Your task to perform on an android device: Go to wifi settings Image 0: 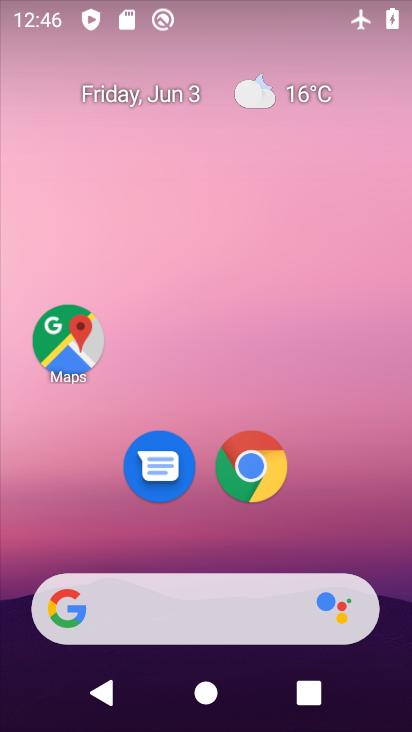
Step 0: click (243, 449)
Your task to perform on an android device: Go to wifi settings Image 1: 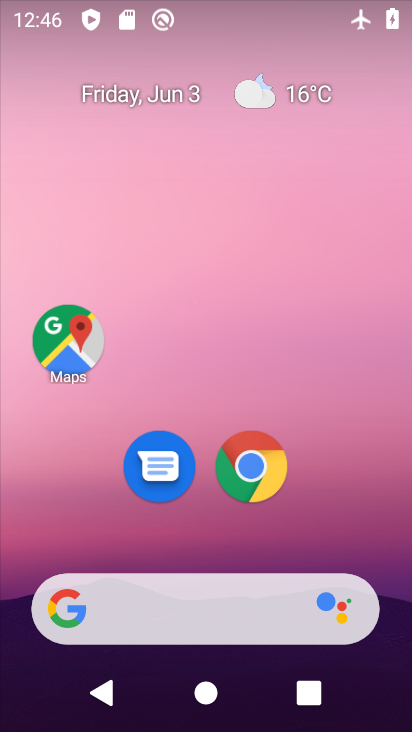
Step 1: drag from (155, 568) to (175, 218)
Your task to perform on an android device: Go to wifi settings Image 2: 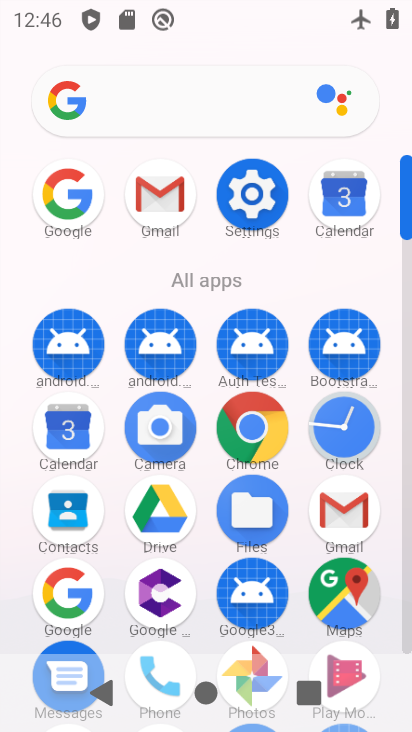
Step 2: click (246, 189)
Your task to perform on an android device: Go to wifi settings Image 3: 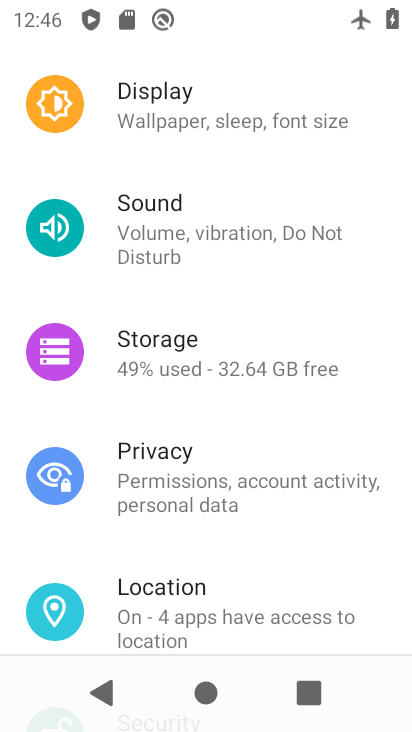
Step 3: drag from (205, 95) to (195, 542)
Your task to perform on an android device: Go to wifi settings Image 4: 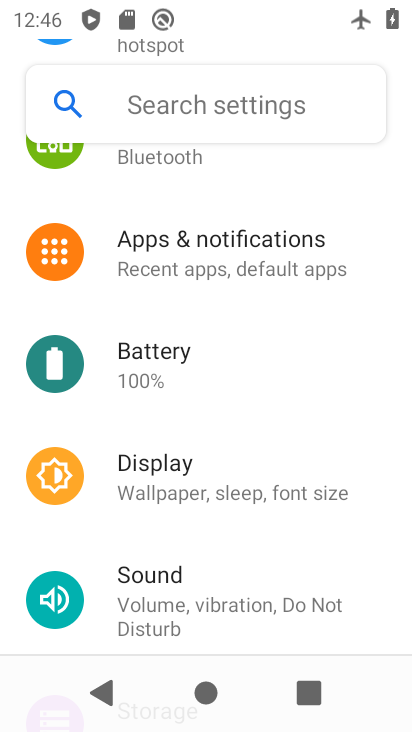
Step 4: drag from (206, 173) to (163, 542)
Your task to perform on an android device: Go to wifi settings Image 5: 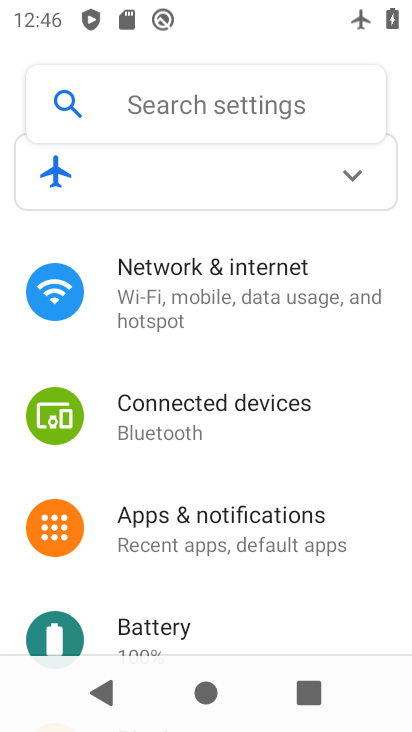
Step 5: click (152, 292)
Your task to perform on an android device: Go to wifi settings Image 6: 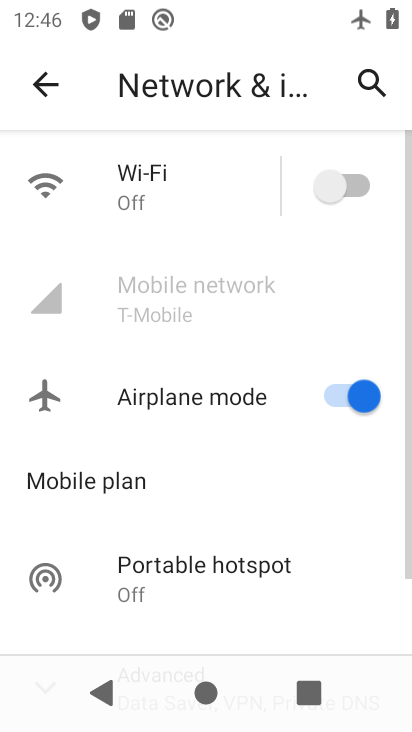
Step 6: click (177, 173)
Your task to perform on an android device: Go to wifi settings Image 7: 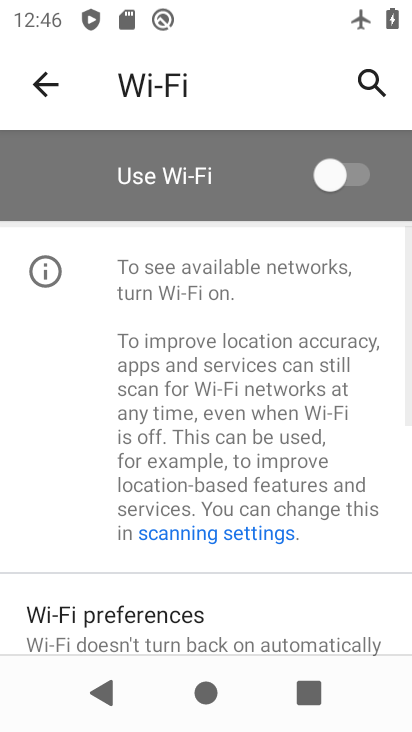
Step 7: click (336, 157)
Your task to perform on an android device: Go to wifi settings Image 8: 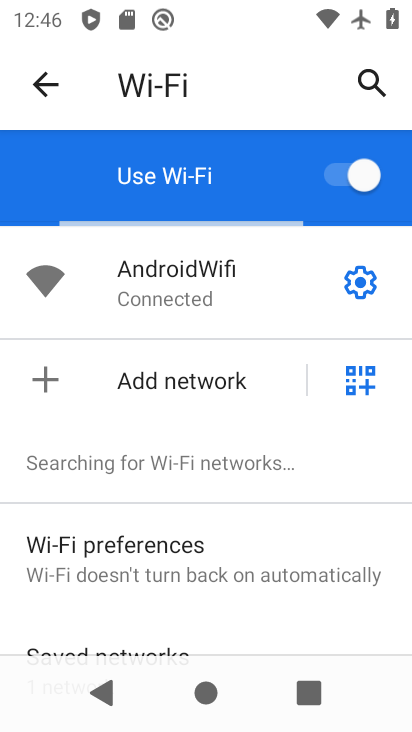
Step 8: click (372, 273)
Your task to perform on an android device: Go to wifi settings Image 9: 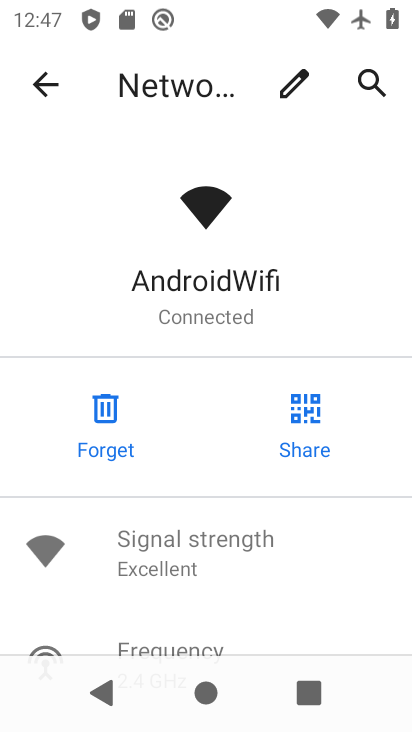
Step 9: task complete